Your task to perform on an android device: What's on my calendar today? Image 0: 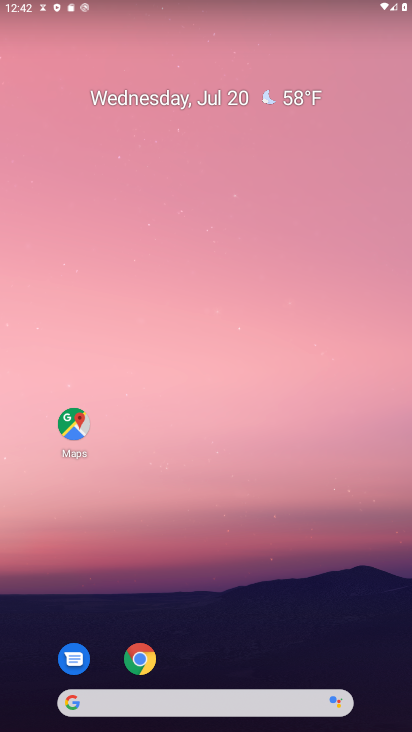
Step 0: press home button
Your task to perform on an android device: What's on my calendar today? Image 1: 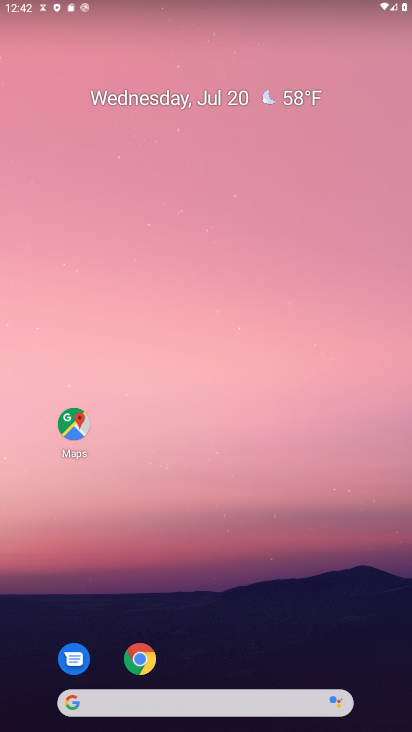
Step 1: drag from (211, 670) to (225, 62)
Your task to perform on an android device: What's on my calendar today? Image 2: 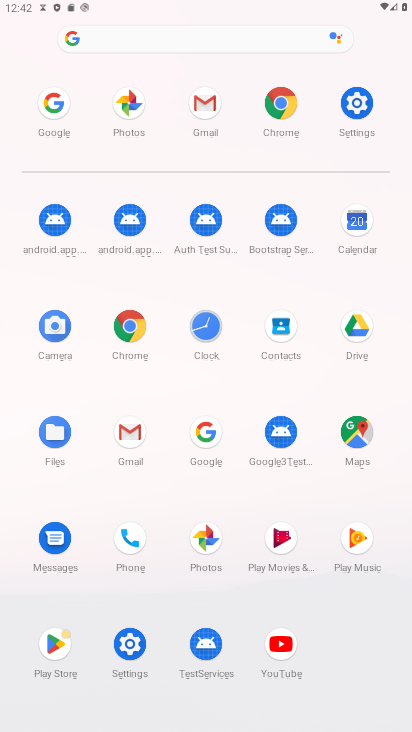
Step 2: click (352, 219)
Your task to perform on an android device: What's on my calendar today? Image 3: 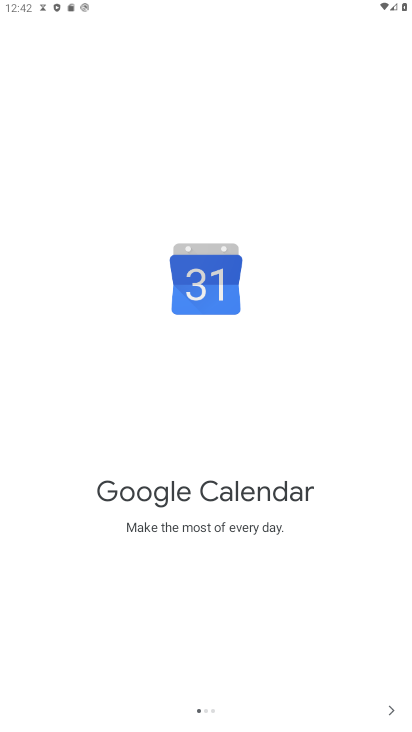
Step 3: click (390, 708)
Your task to perform on an android device: What's on my calendar today? Image 4: 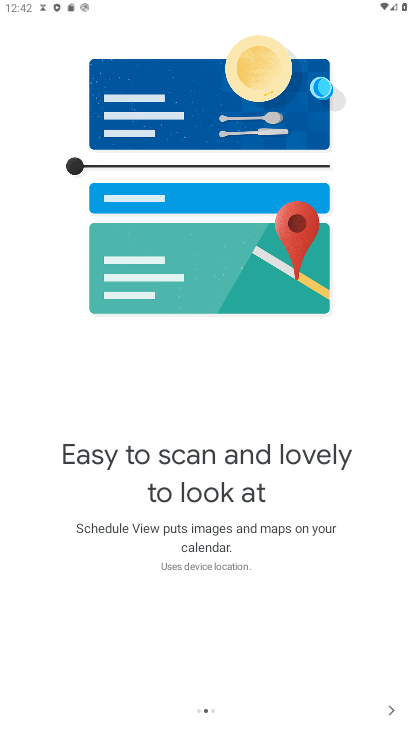
Step 4: click (390, 708)
Your task to perform on an android device: What's on my calendar today? Image 5: 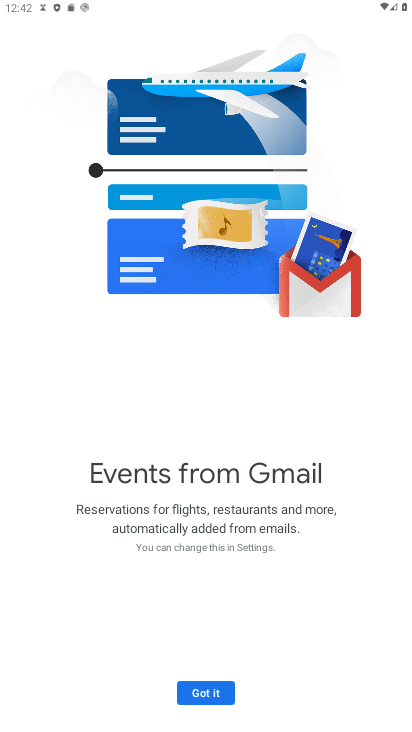
Step 5: click (208, 686)
Your task to perform on an android device: What's on my calendar today? Image 6: 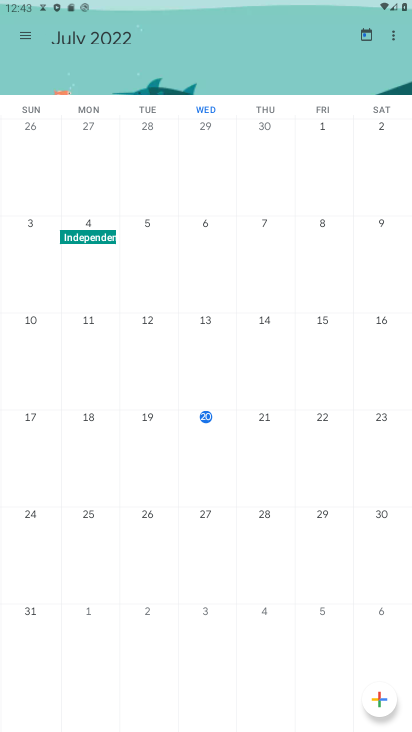
Step 6: click (212, 426)
Your task to perform on an android device: What's on my calendar today? Image 7: 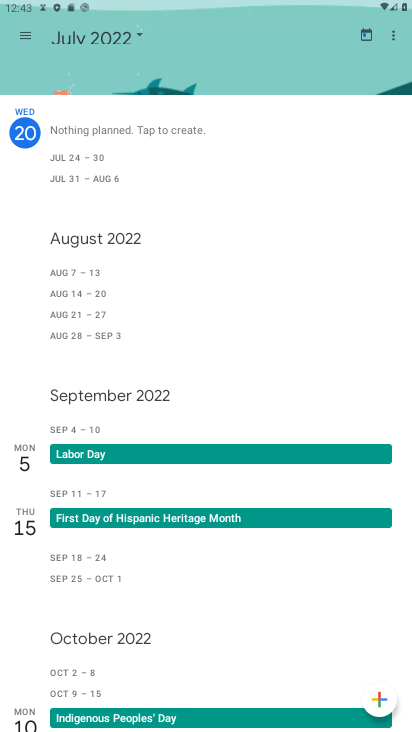
Step 7: click (23, 136)
Your task to perform on an android device: What's on my calendar today? Image 8: 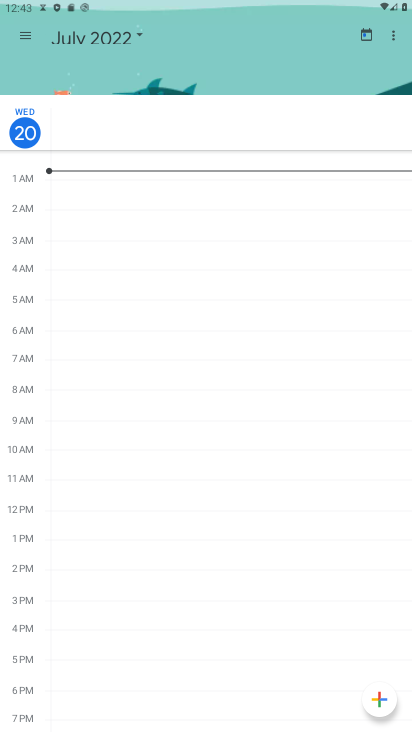
Step 8: task complete